Your task to perform on an android device: Search for Mexican restaurants on Maps Image 0: 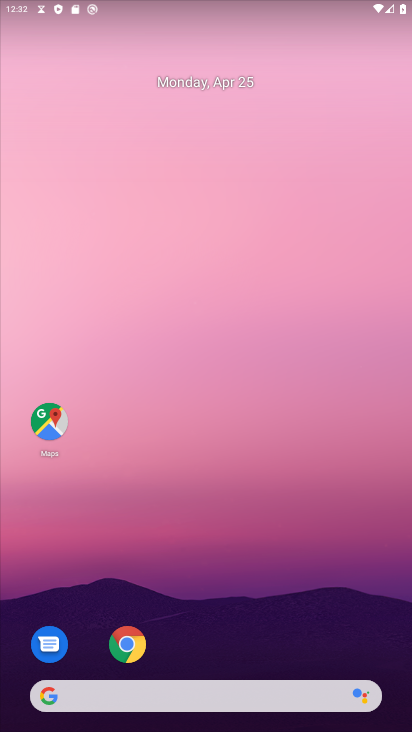
Step 0: click (48, 421)
Your task to perform on an android device: Search for Mexican restaurants on Maps Image 1: 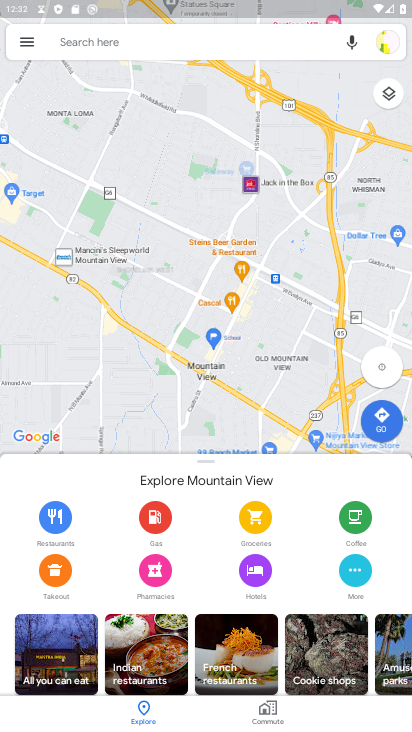
Step 1: click (100, 39)
Your task to perform on an android device: Search for Mexican restaurants on Maps Image 2: 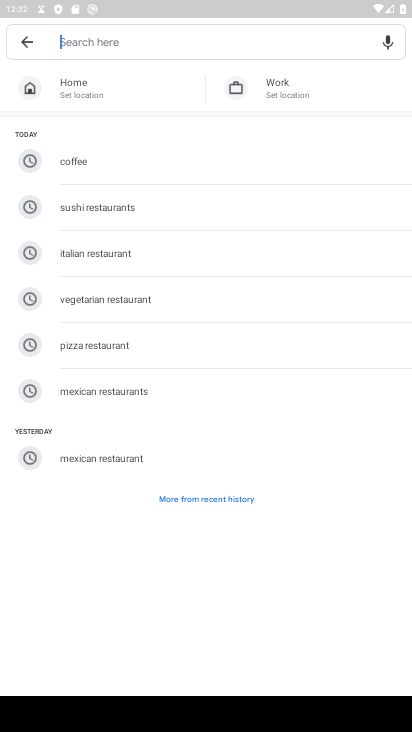
Step 2: type "mexican restaurant"
Your task to perform on an android device: Search for Mexican restaurants on Maps Image 3: 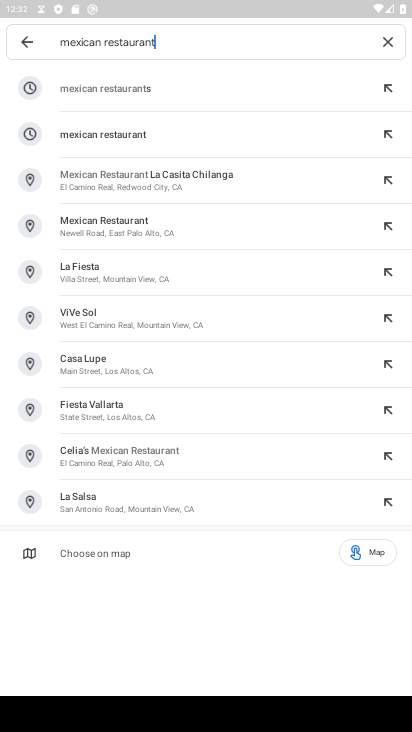
Step 3: click (128, 92)
Your task to perform on an android device: Search for Mexican restaurants on Maps Image 4: 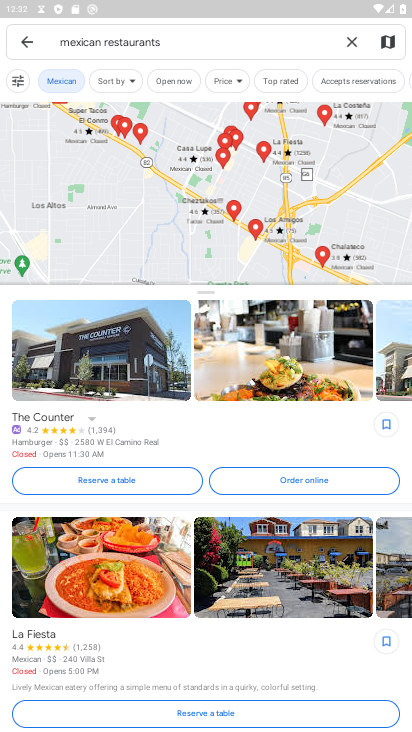
Step 4: task complete